Your task to perform on an android device: What's on my calendar today? Image 0: 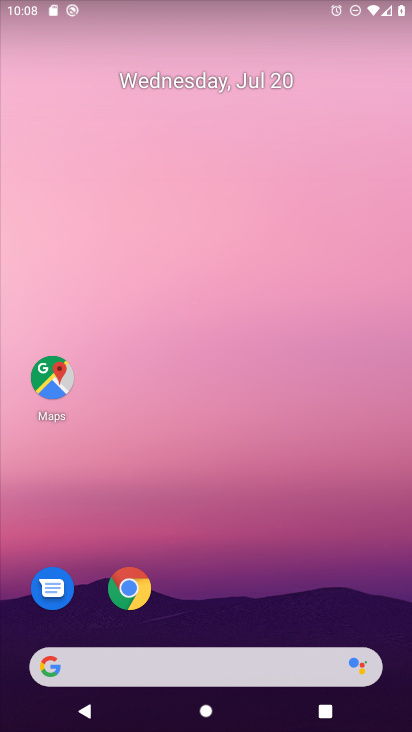
Step 0: click (235, 90)
Your task to perform on an android device: What's on my calendar today? Image 1: 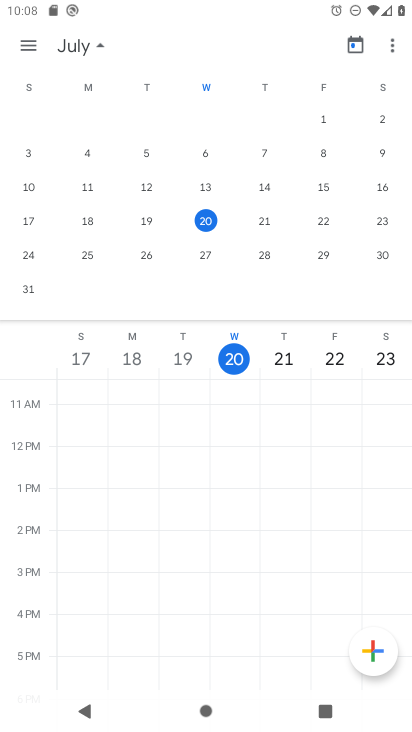
Step 1: task complete